Your task to perform on an android device: Add "asus rog" to the cart on ebay, then select checkout. Image 0: 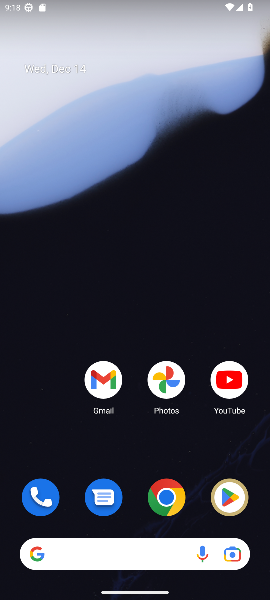
Step 0: click (167, 505)
Your task to perform on an android device: Add "asus rog" to the cart on ebay, then select checkout. Image 1: 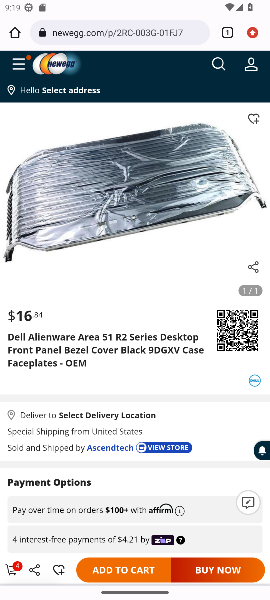
Step 1: click (81, 25)
Your task to perform on an android device: Add "asus rog" to the cart on ebay, then select checkout. Image 2: 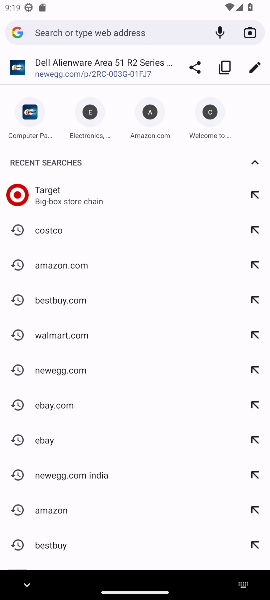
Step 2: type "ebay"
Your task to perform on an android device: Add "asus rog" to the cart on ebay, then select checkout. Image 3: 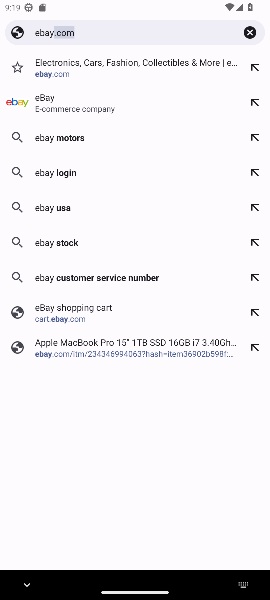
Step 3: click (68, 80)
Your task to perform on an android device: Add "asus rog" to the cart on ebay, then select checkout. Image 4: 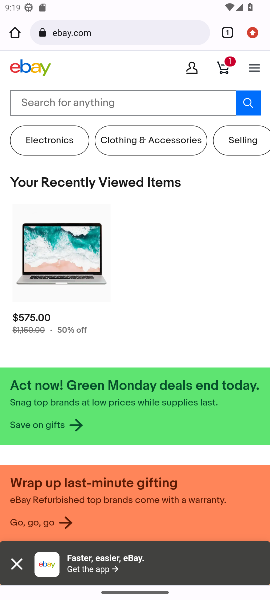
Step 4: click (150, 101)
Your task to perform on an android device: Add "asus rog" to the cart on ebay, then select checkout. Image 5: 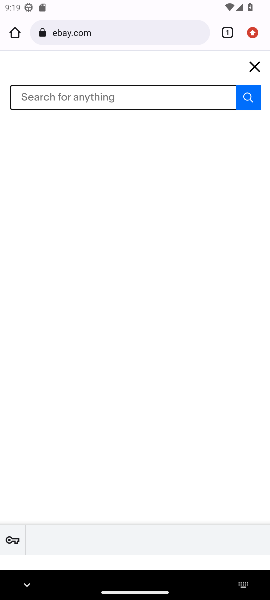
Step 5: type "asus rog"
Your task to perform on an android device: Add "asus rog" to the cart on ebay, then select checkout. Image 6: 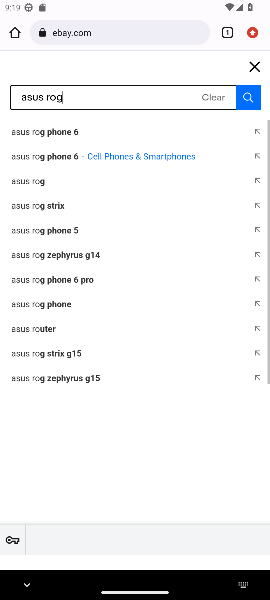
Step 6: click (240, 102)
Your task to perform on an android device: Add "asus rog" to the cart on ebay, then select checkout. Image 7: 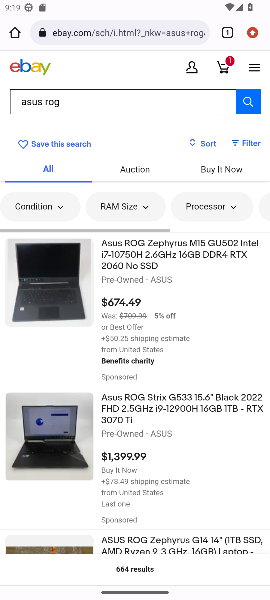
Step 7: click (107, 263)
Your task to perform on an android device: Add "asus rog" to the cart on ebay, then select checkout. Image 8: 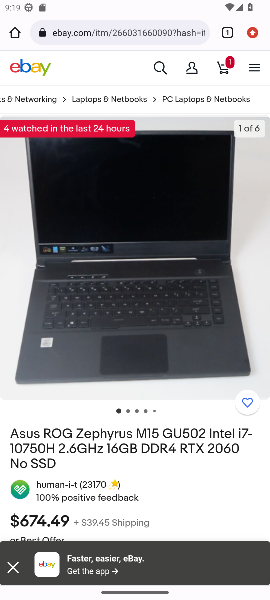
Step 8: drag from (223, 487) to (245, 248)
Your task to perform on an android device: Add "asus rog" to the cart on ebay, then select checkout. Image 9: 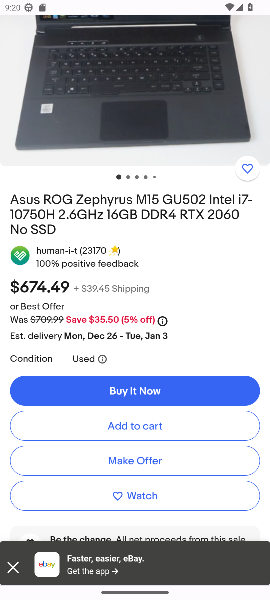
Step 9: click (131, 423)
Your task to perform on an android device: Add "asus rog" to the cart on ebay, then select checkout. Image 10: 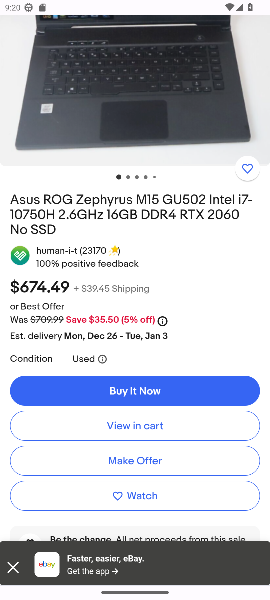
Step 10: click (131, 423)
Your task to perform on an android device: Add "asus rog" to the cart on ebay, then select checkout. Image 11: 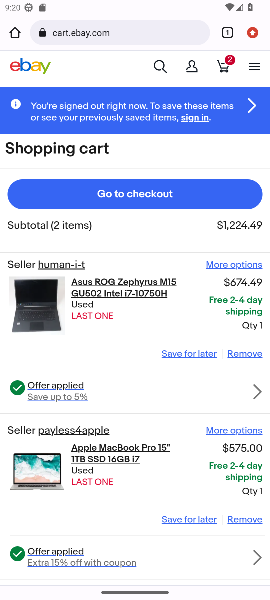
Step 11: click (138, 352)
Your task to perform on an android device: Add "asus rog" to the cart on ebay, then select checkout. Image 12: 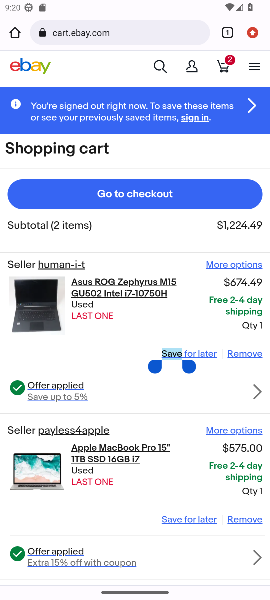
Step 12: click (161, 198)
Your task to perform on an android device: Add "asus rog" to the cart on ebay, then select checkout. Image 13: 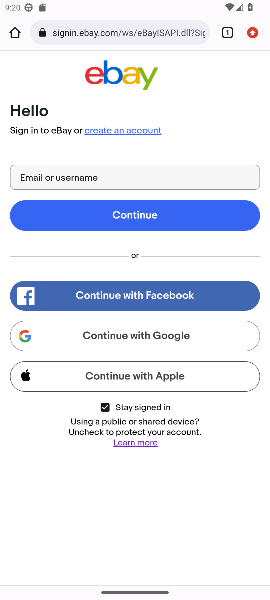
Step 13: task complete